Your task to perform on an android device: Search for vegetarian restaurants on Maps Image 0: 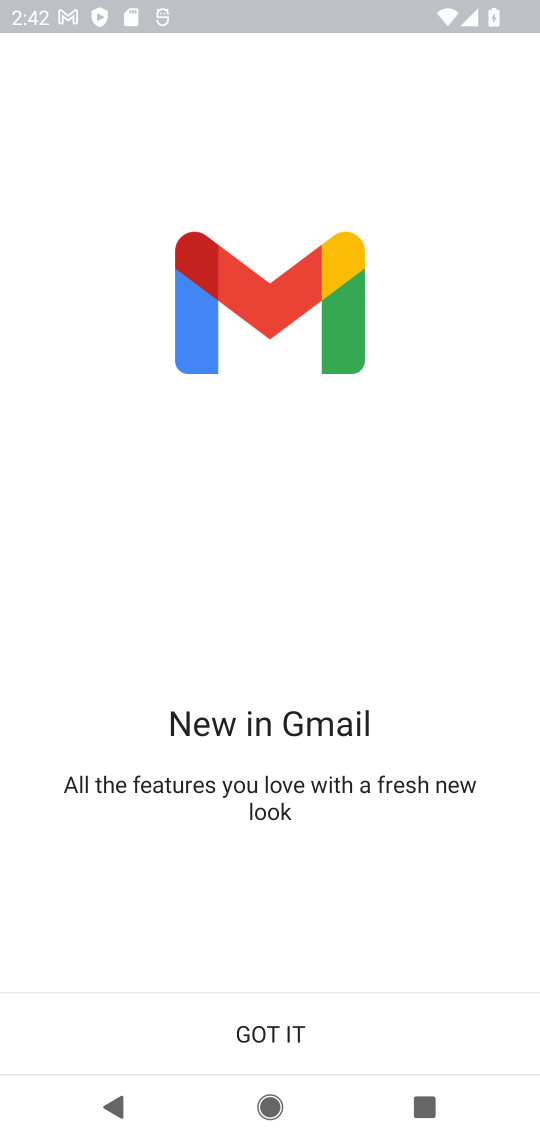
Step 0: press home button
Your task to perform on an android device: Search for vegetarian restaurants on Maps Image 1: 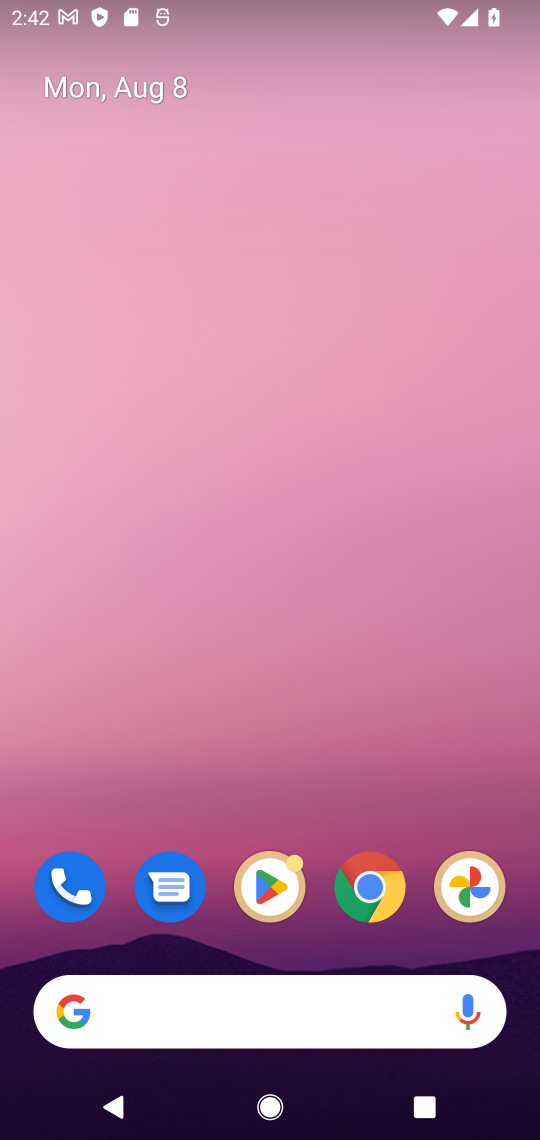
Step 1: drag from (230, 984) to (35, 254)
Your task to perform on an android device: Search for vegetarian restaurants on Maps Image 2: 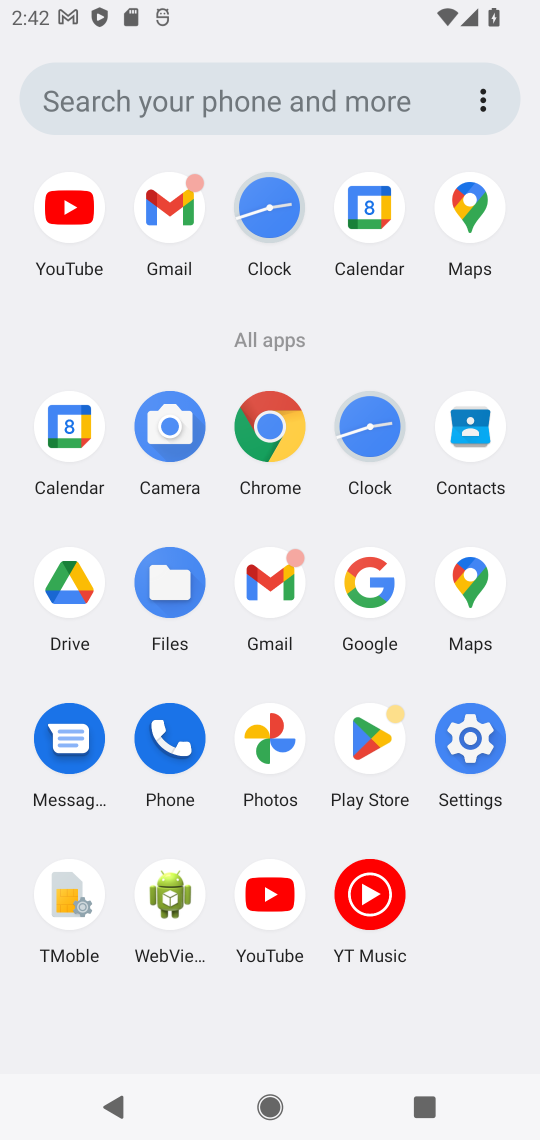
Step 2: click (486, 578)
Your task to perform on an android device: Search for vegetarian restaurants on Maps Image 3: 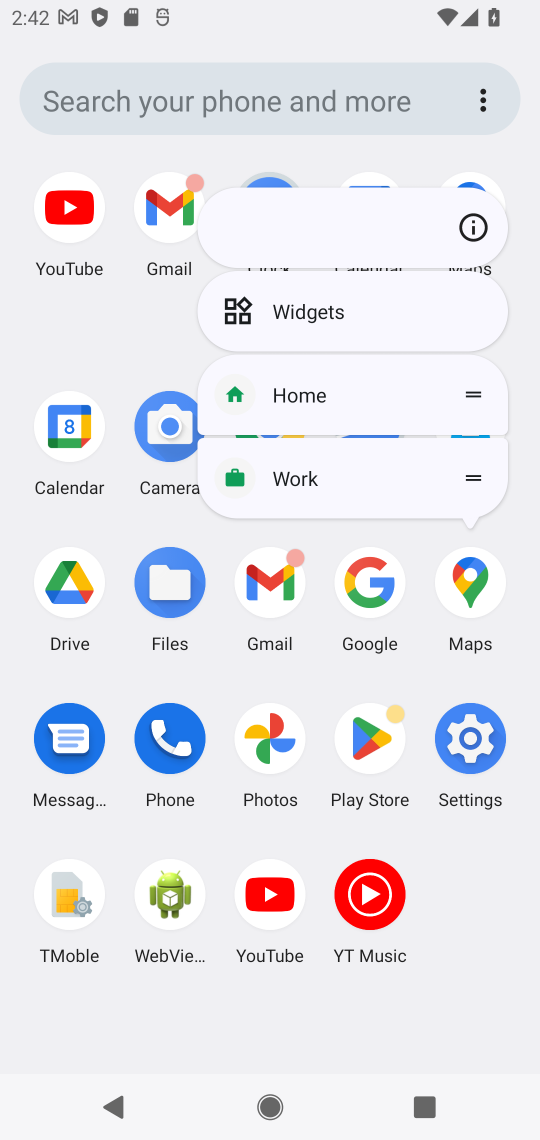
Step 3: click (456, 575)
Your task to perform on an android device: Search for vegetarian restaurants on Maps Image 4: 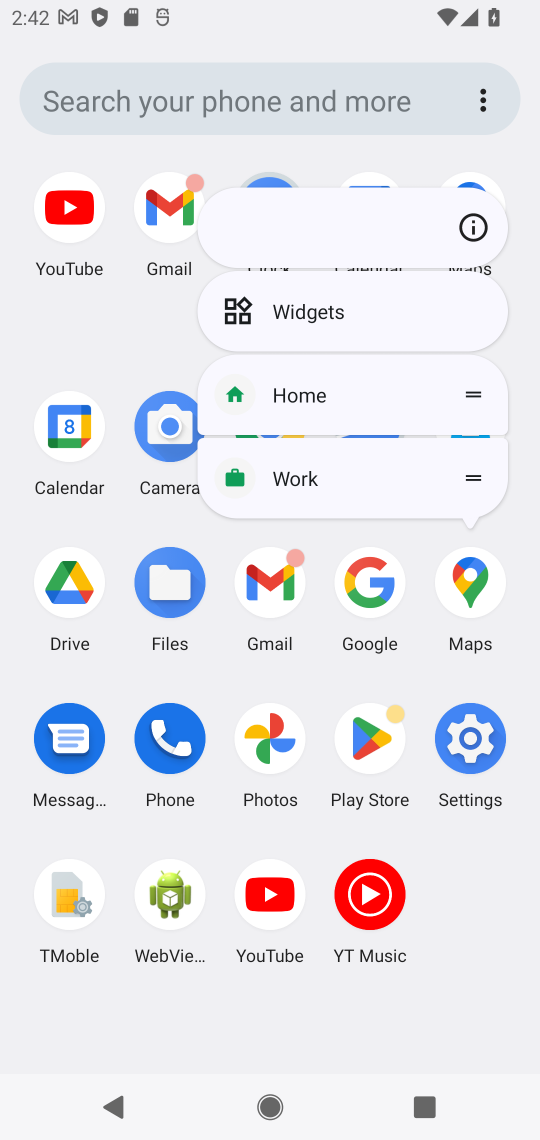
Step 4: click (473, 578)
Your task to perform on an android device: Search for vegetarian restaurants on Maps Image 5: 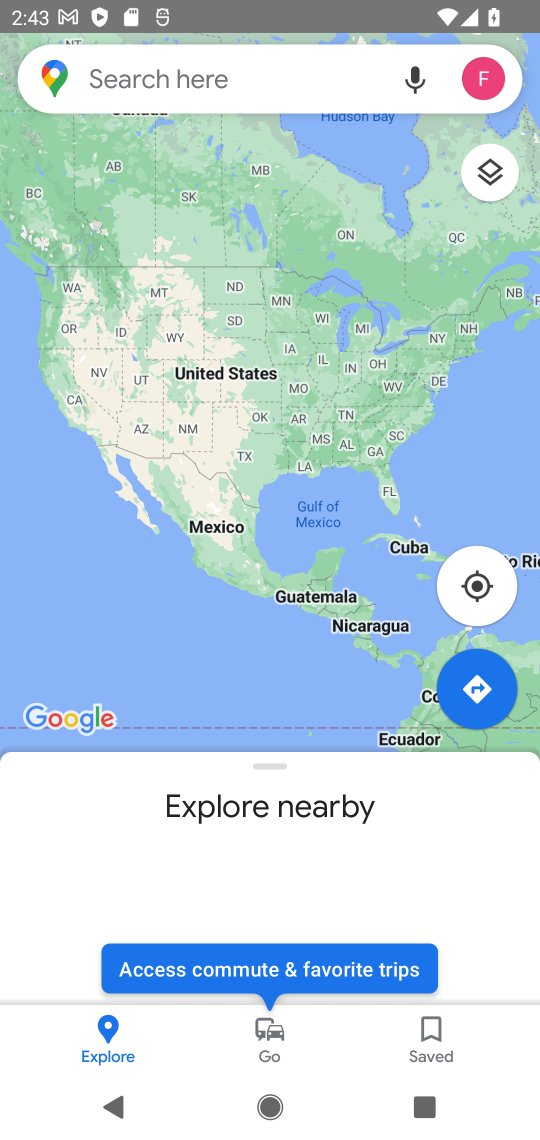
Step 5: click (175, 57)
Your task to perform on an android device: Search for vegetarian restaurants on Maps Image 6: 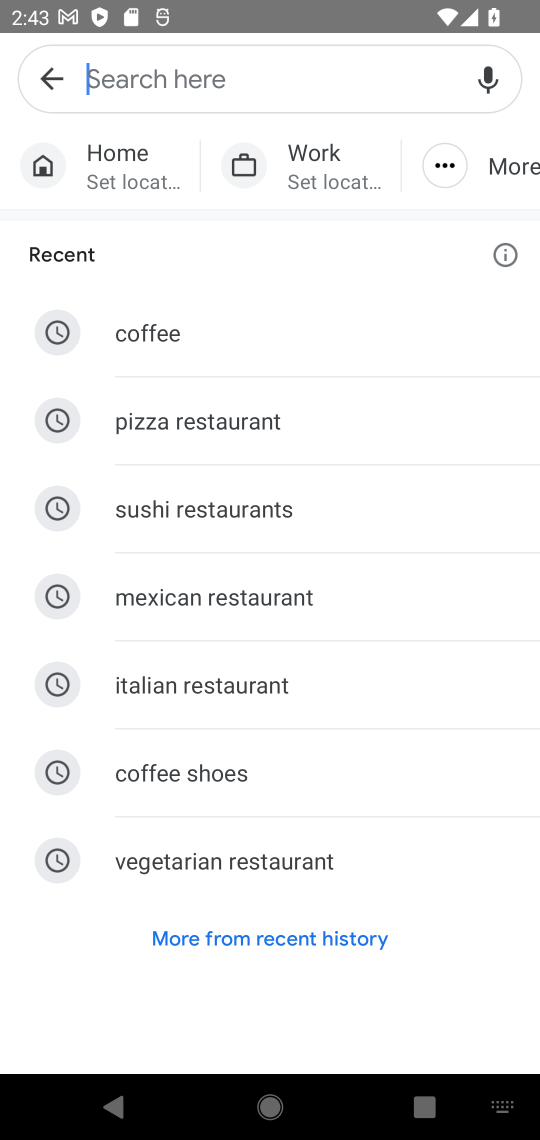
Step 6: click (144, 858)
Your task to perform on an android device: Search for vegetarian restaurants on Maps Image 7: 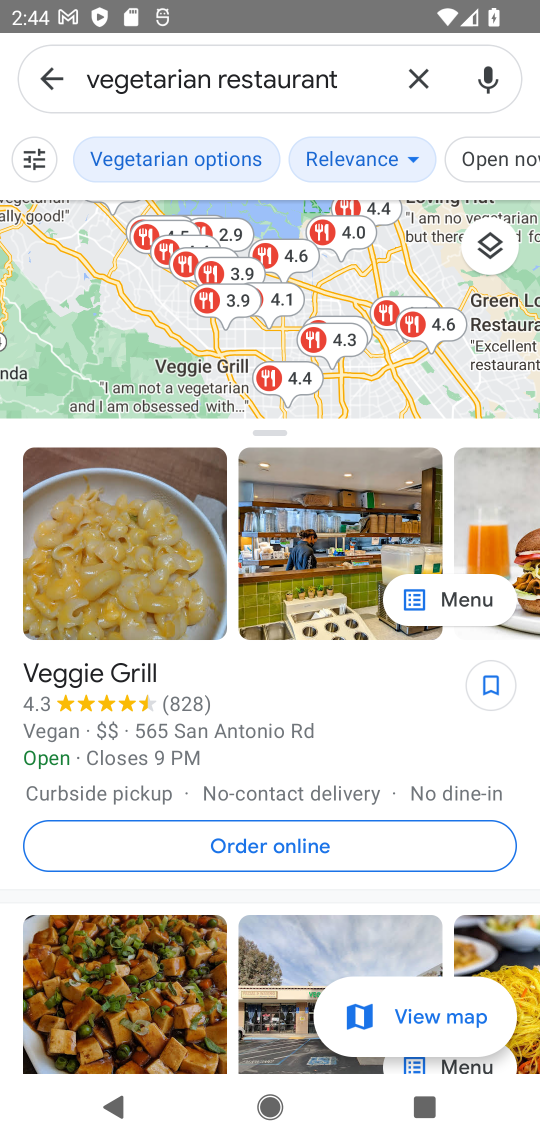
Step 7: task complete